Your task to perform on an android device: See recent photos Image 0: 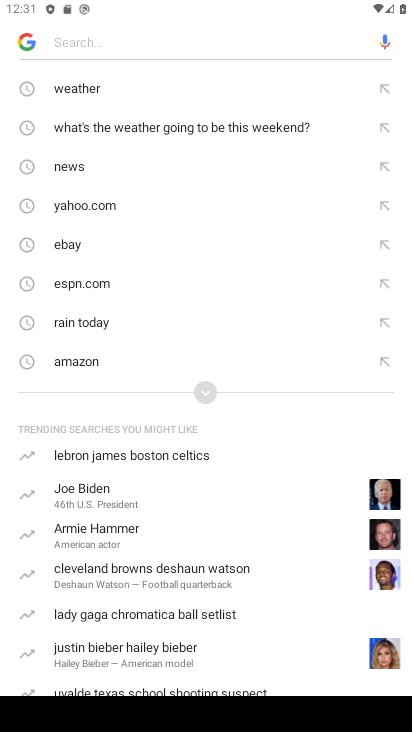
Step 0: press home button
Your task to perform on an android device: See recent photos Image 1: 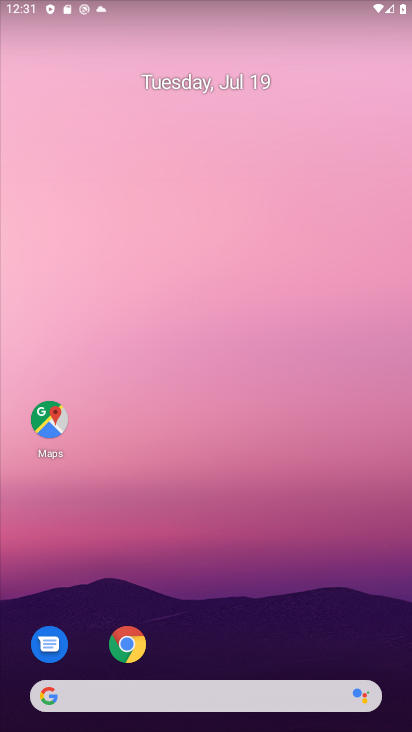
Step 1: drag from (244, 631) to (205, 100)
Your task to perform on an android device: See recent photos Image 2: 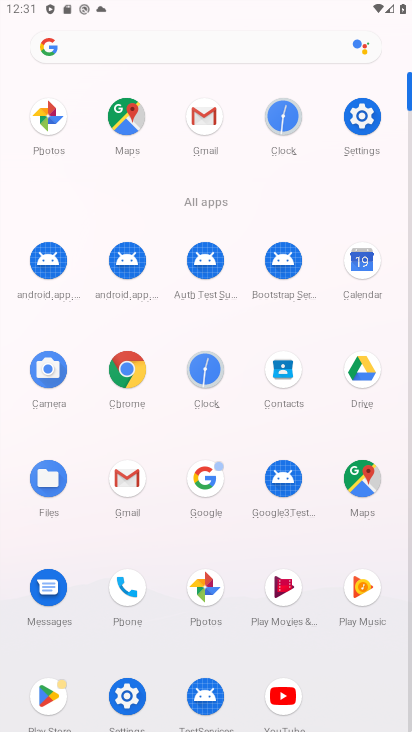
Step 2: click (51, 129)
Your task to perform on an android device: See recent photos Image 3: 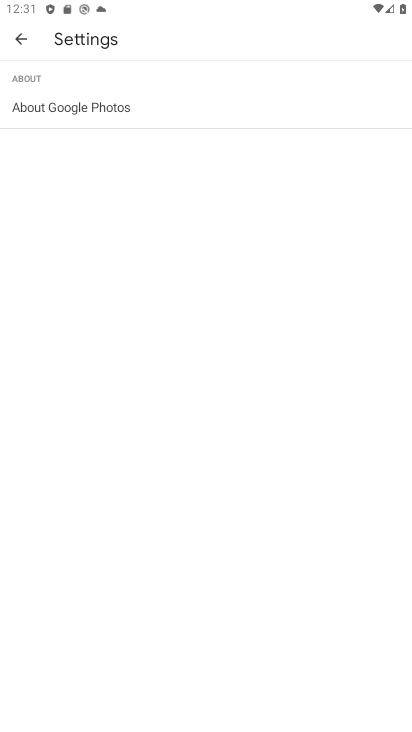
Step 3: click (26, 47)
Your task to perform on an android device: See recent photos Image 4: 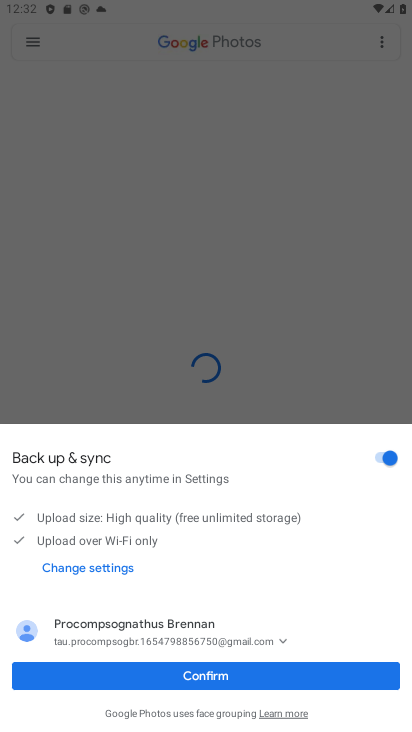
Step 4: click (225, 681)
Your task to perform on an android device: See recent photos Image 5: 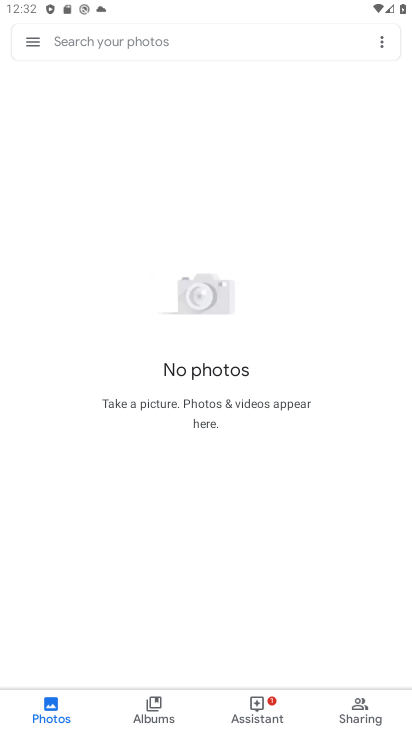
Step 5: task complete